Your task to perform on an android device: Go to Wikipedia Image 0: 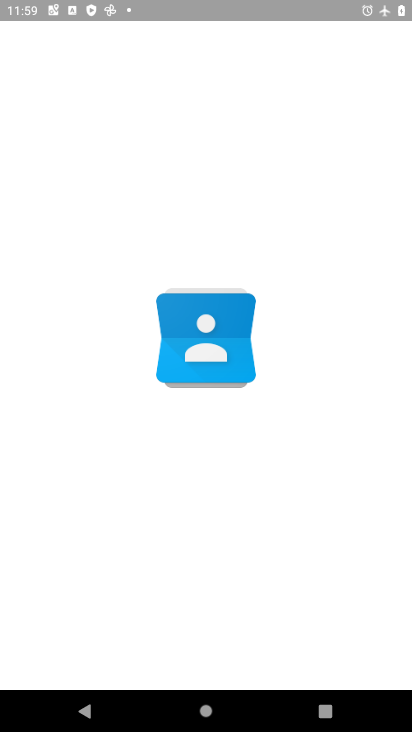
Step 0: drag from (221, 646) to (383, 11)
Your task to perform on an android device: Go to Wikipedia Image 1: 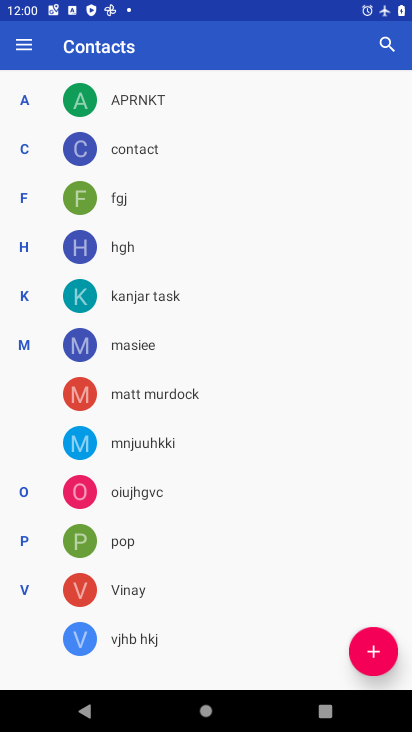
Step 1: press home button
Your task to perform on an android device: Go to Wikipedia Image 2: 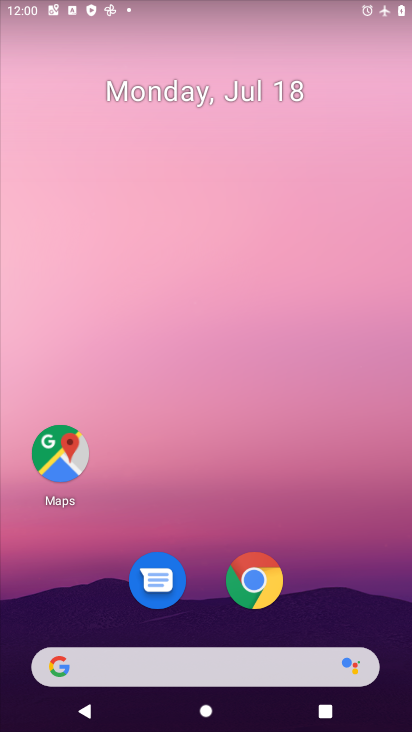
Step 2: drag from (220, 613) to (257, 211)
Your task to perform on an android device: Go to Wikipedia Image 3: 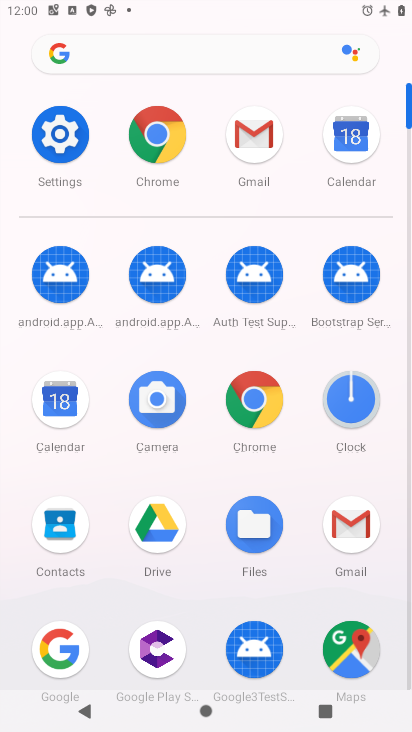
Step 3: click (153, 143)
Your task to perform on an android device: Go to Wikipedia Image 4: 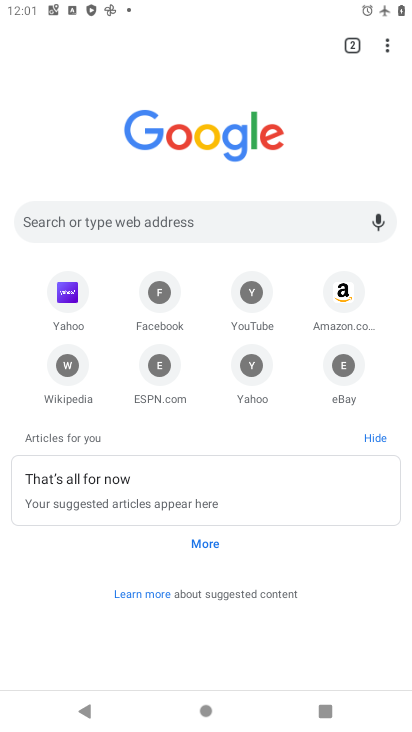
Step 4: click (77, 380)
Your task to perform on an android device: Go to Wikipedia Image 5: 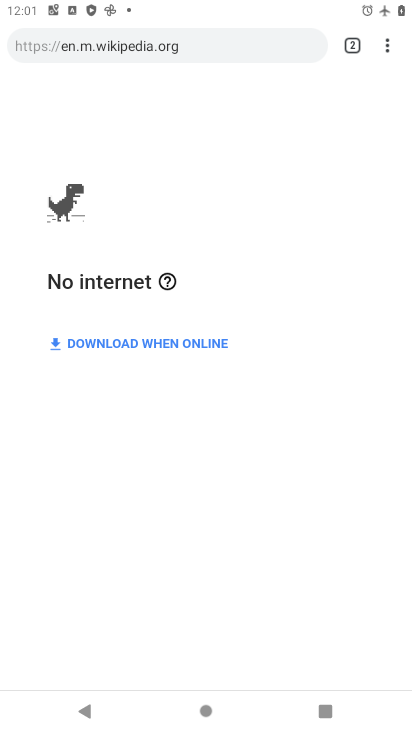
Step 5: task complete